Your task to perform on an android device: Go to location settings Image 0: 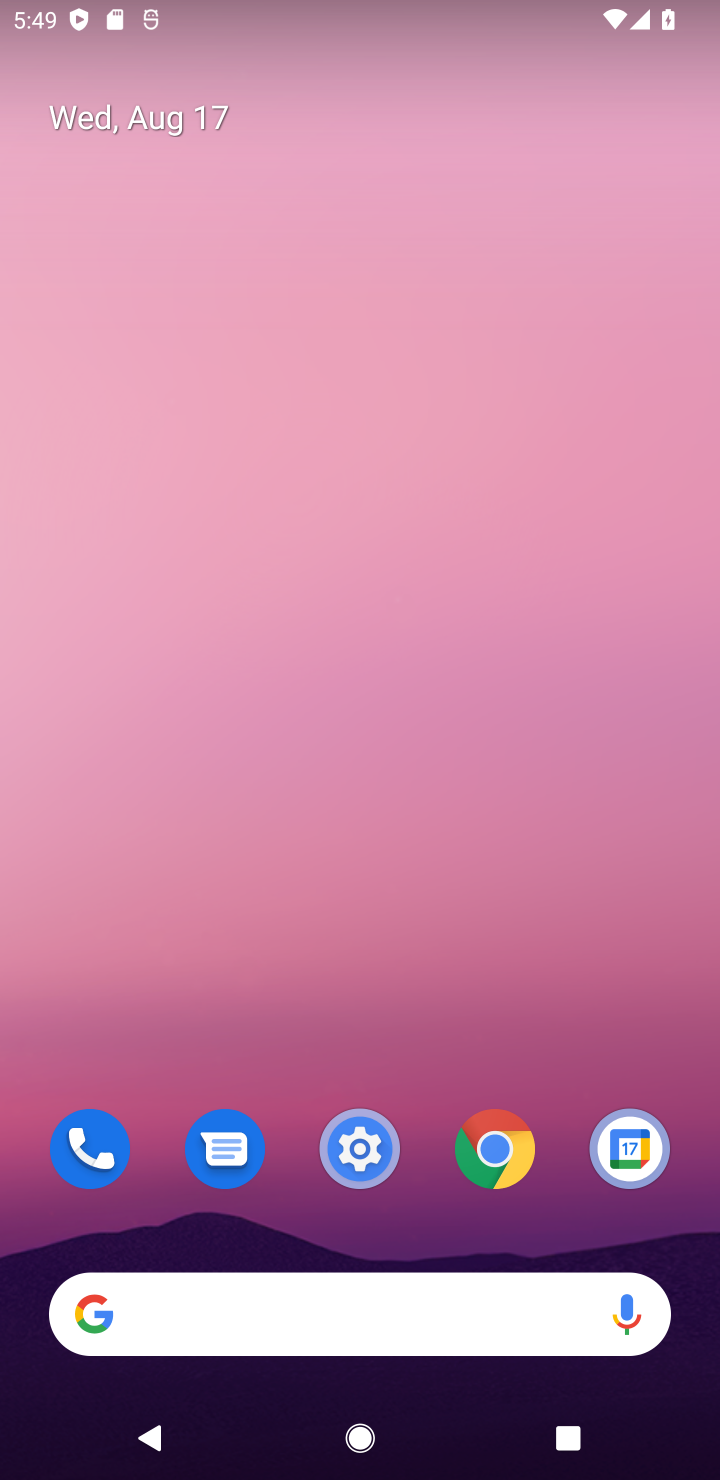
Step 0: click (354, 1139)
Your task to perform on an android device: Go to location settings Image 1: 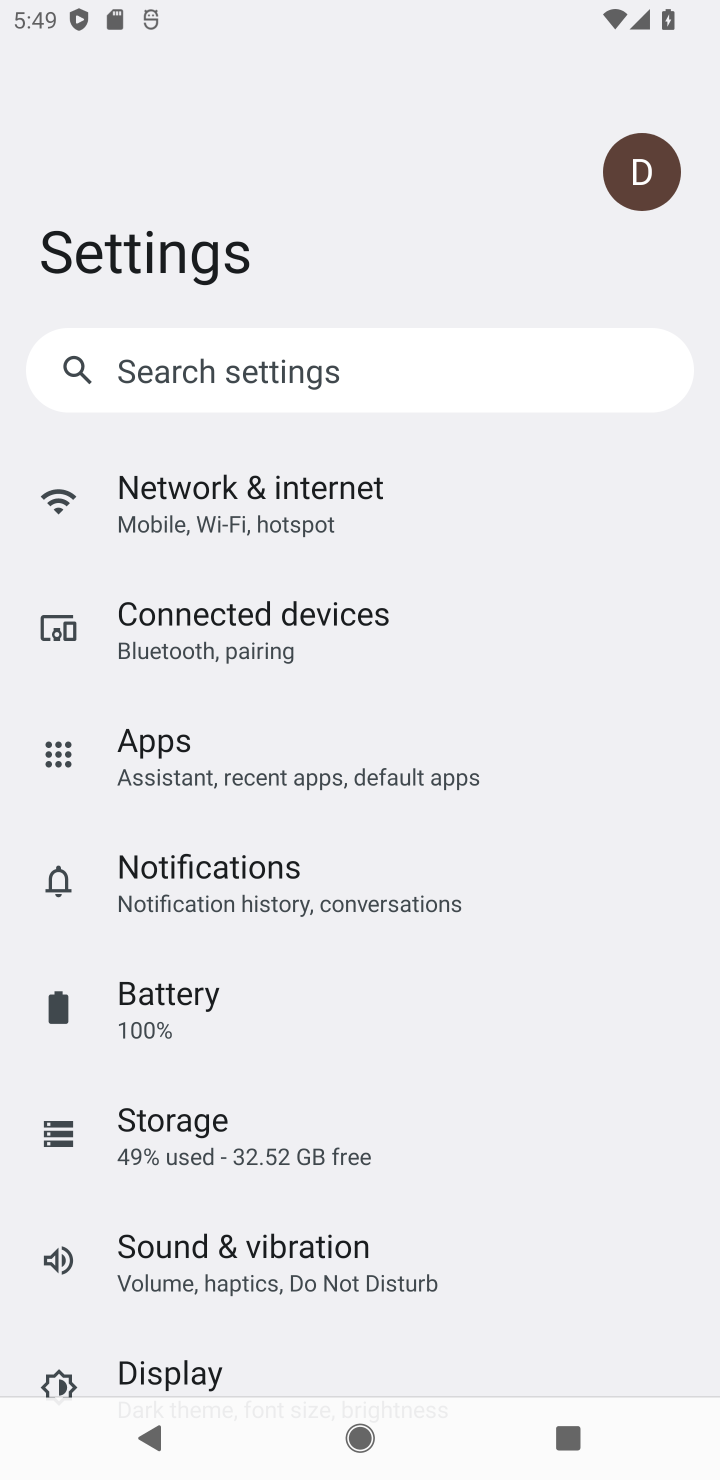
Step 1: drag from (425, 1287) to (390, 564)
Your task to perform on an android device: Go to location settings Image 2: 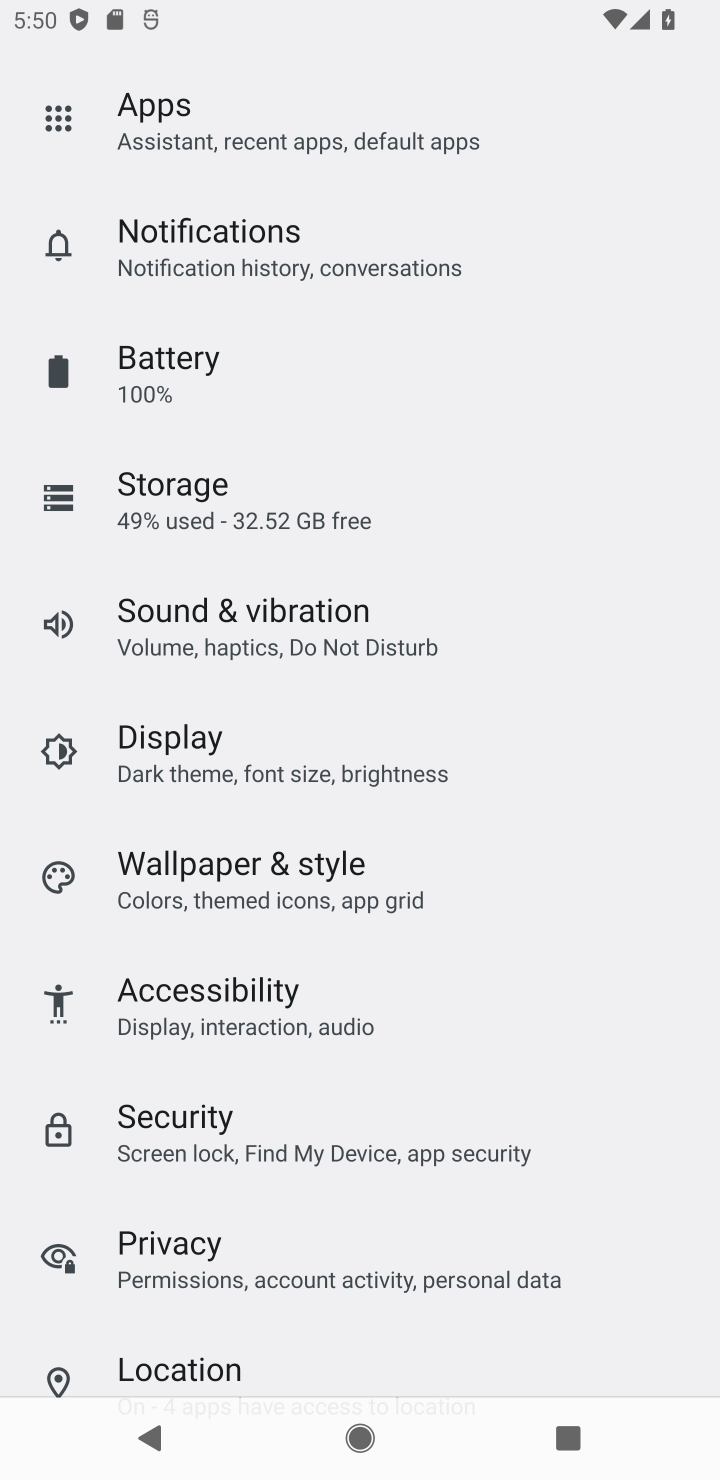
Step 2: click (227, 1355)
Your task to perform on an android device: Go to location settings Image 3: 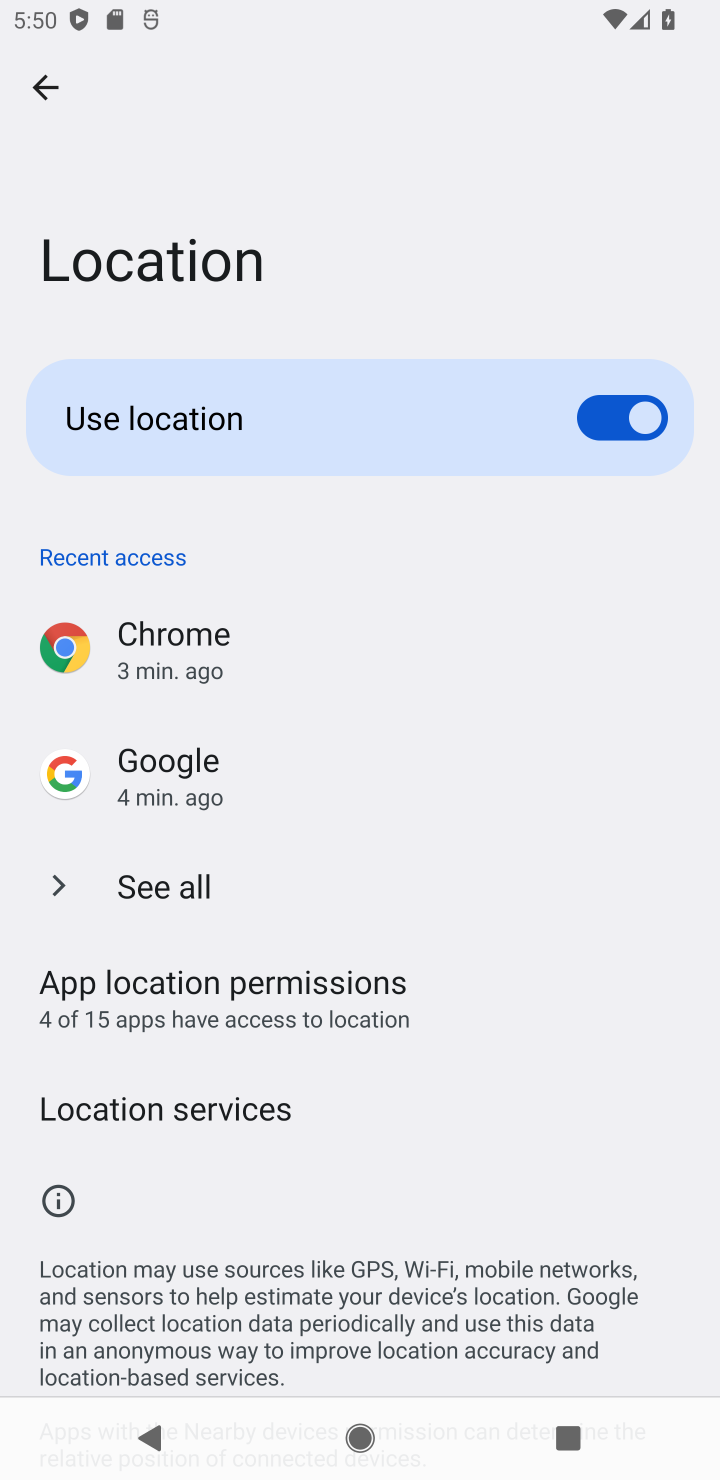
Step 3: task complete